Your task to perform on an android device: Empty the shopping cart on bestbuy. Image 0: 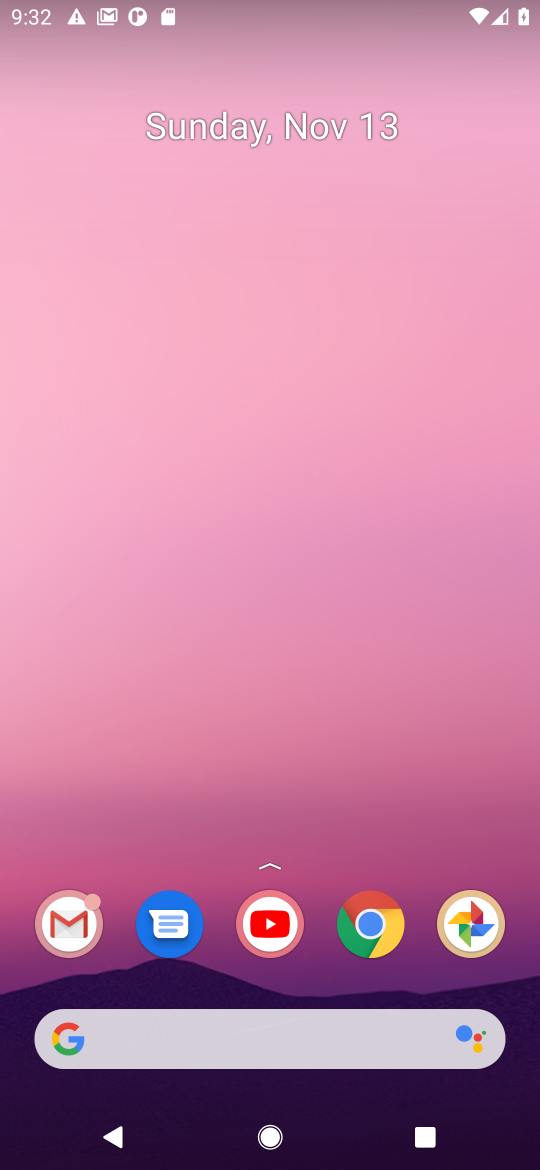
Step 0: click (380, 930)
Your task to perform on an android device: Empty the shopping cart on bestbuy. Image 1: 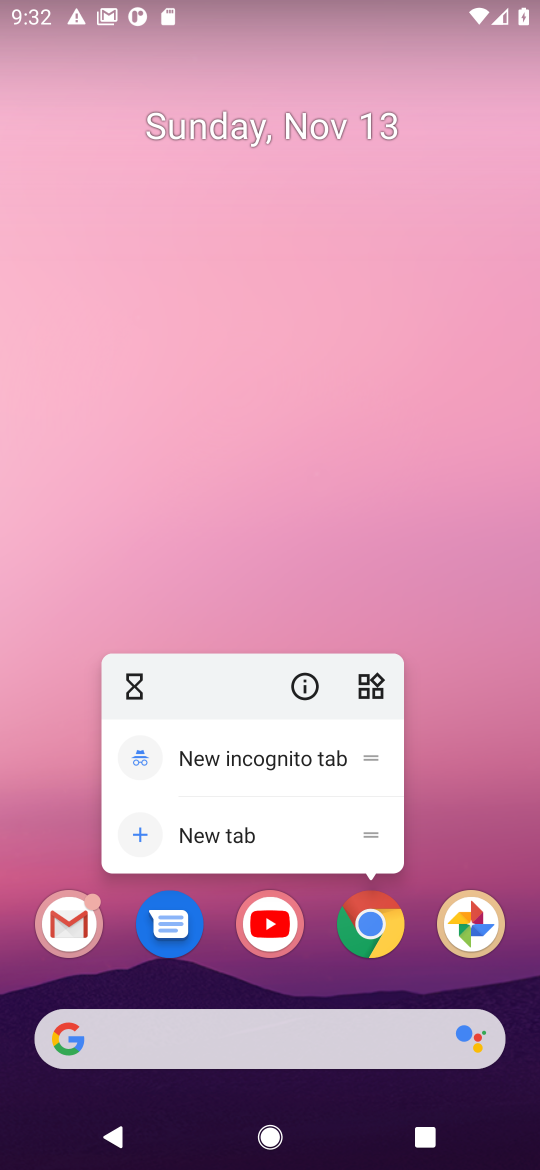
Step 1: click (382, 930)
Your task to perform on an android device: Empty the shopping cart on bestbuy. Image 2: 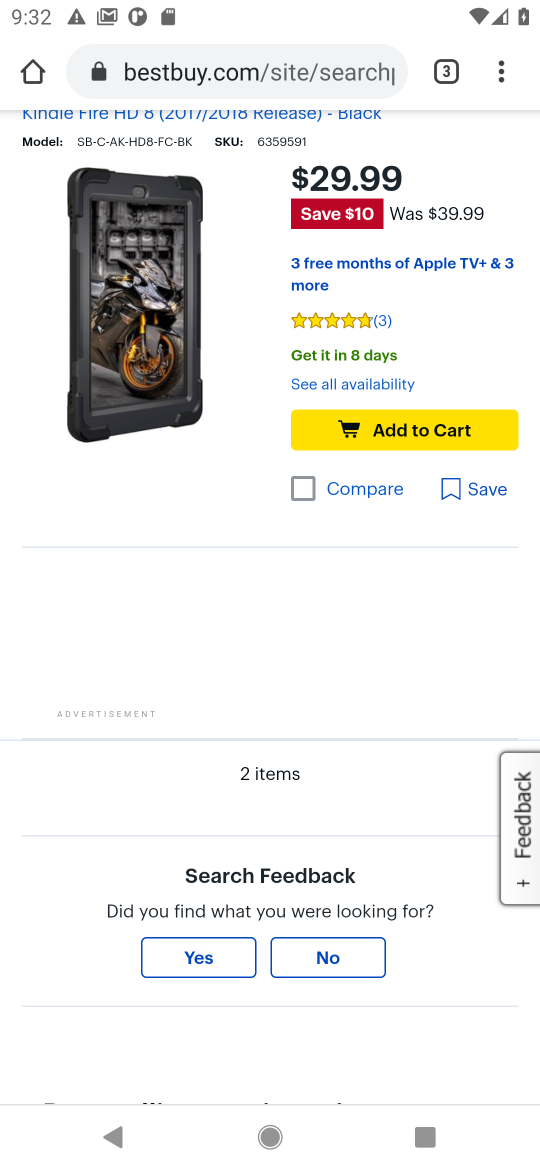
Step 2: drag from (404, 240) to (379, 908)
Your task to perform on an android device: Empty the shopping cart on bestbuy. Image 3: 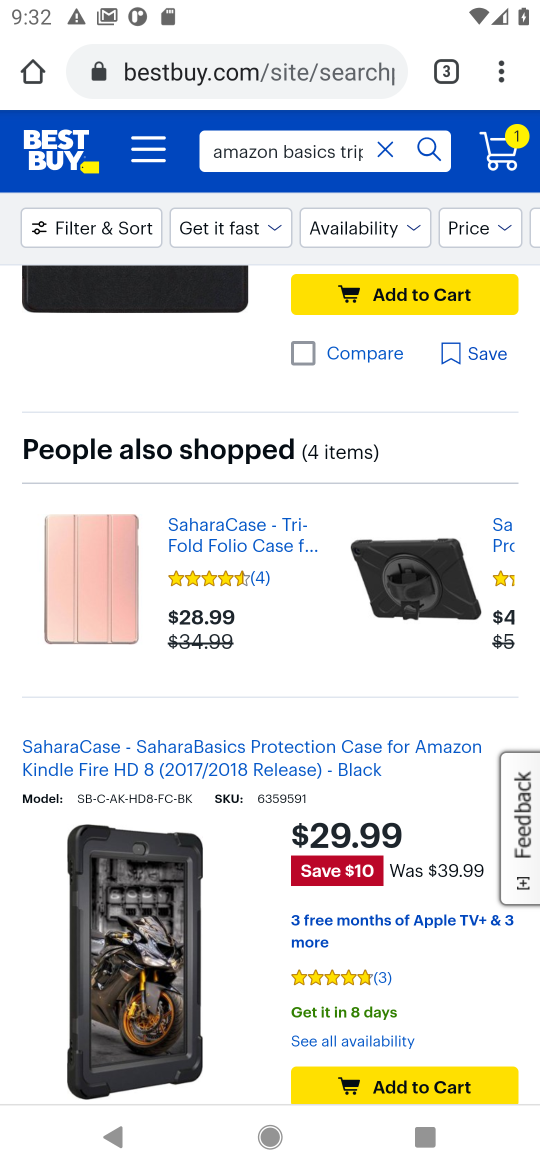
Step 3: drag from (389, 413) to (371, 996)
Your task to perform on an android device: Empty the shopping cart on bestbuy. Image 4: 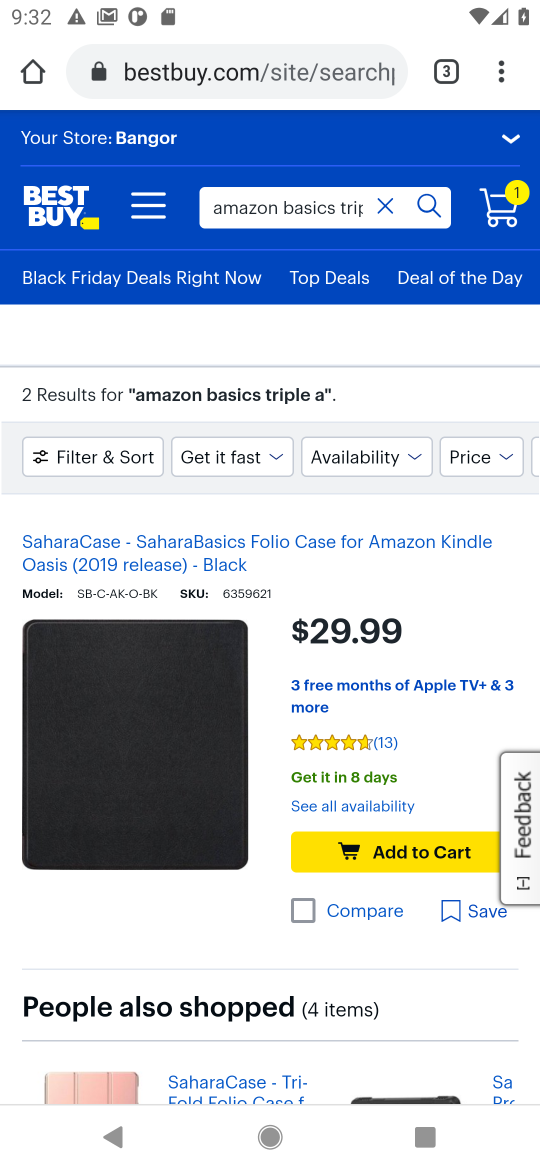
Step 4: click (504, 159)
Your task to perform on an android device: Empty the shopping cart on bestbuy. Image 5: 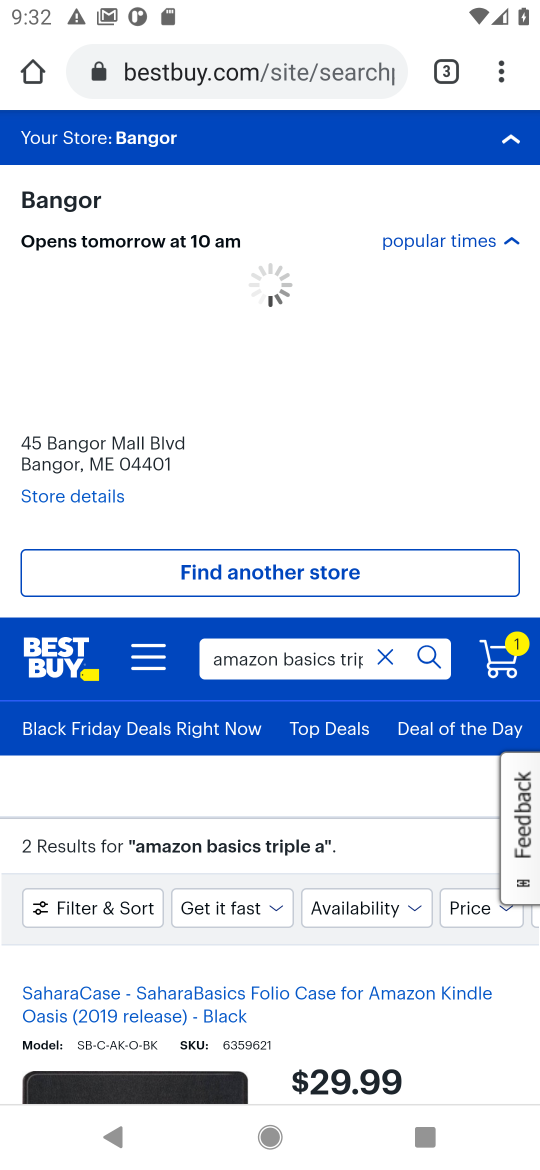
Step 5: click (501, 673)
Your task to perform on an android device: Empty the shopping cart on bestbuy. Image 6: 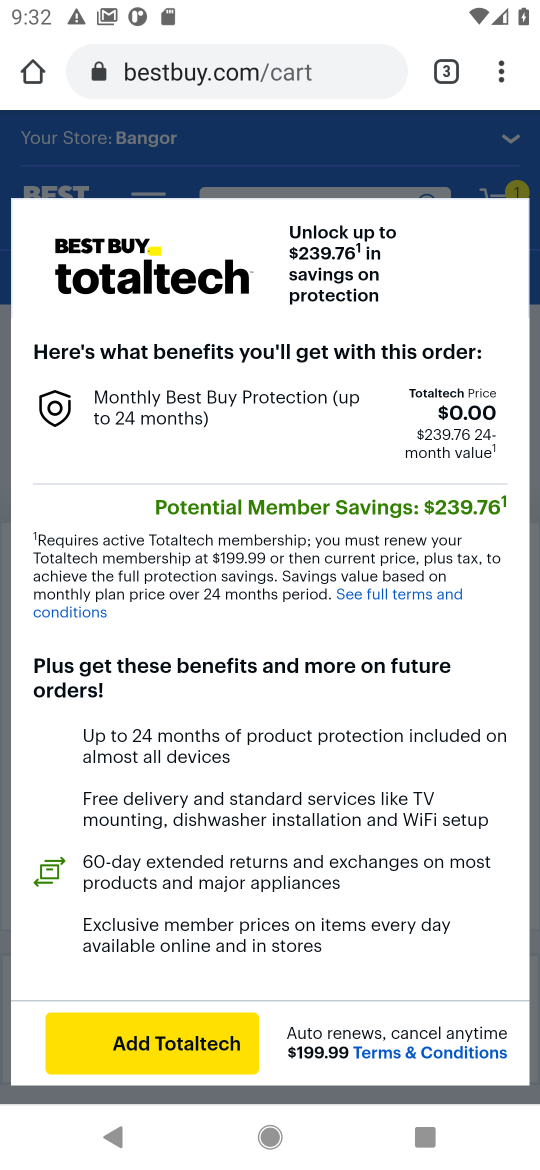
Step 6: drag from (144, 705) to (168, 443)
Your task to perform on an android device: Empty the shopping cart on bestbuy. Image 7: 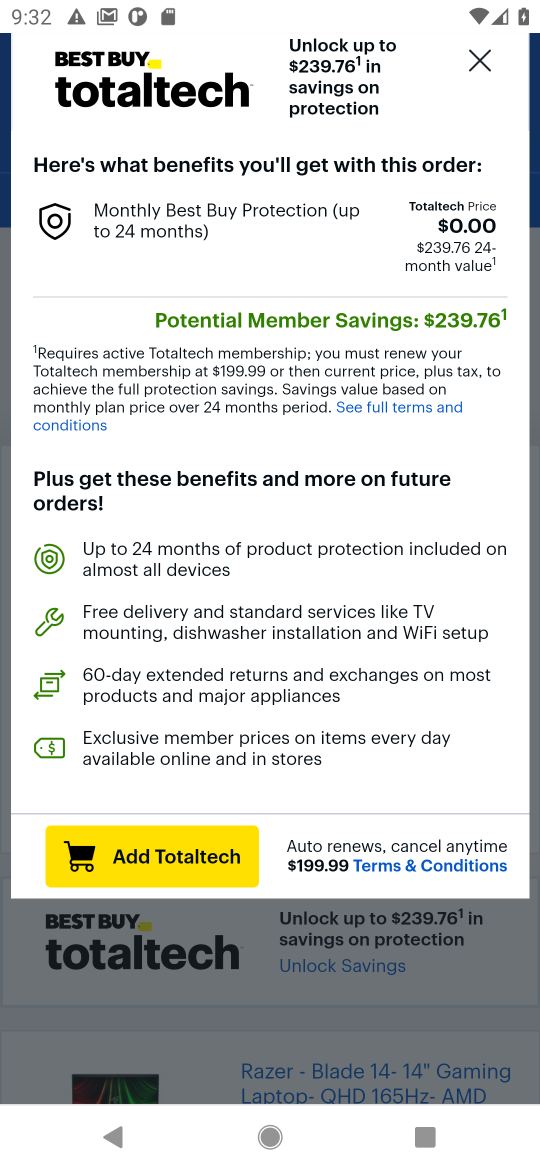
Step 7: click (486, 53)
Your task to perform on an android device: Empty the shopping cart on bestbuy. Image 8: 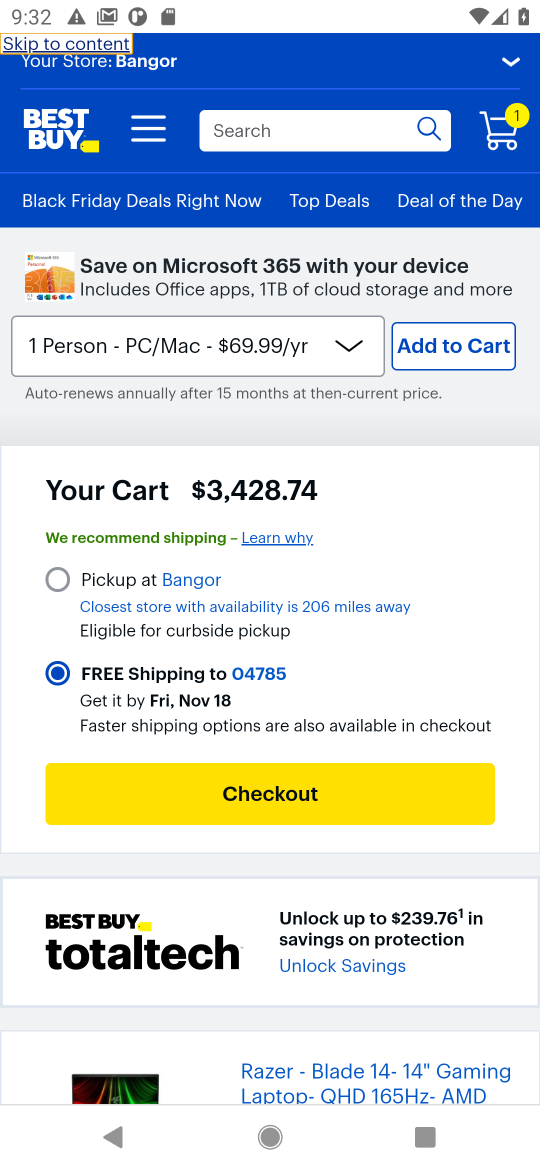
Step 8: drag from (263, 571) to (245, 210)
Your task to perform on an android device: Empty the shopping cart on bestbuy. Image 9: 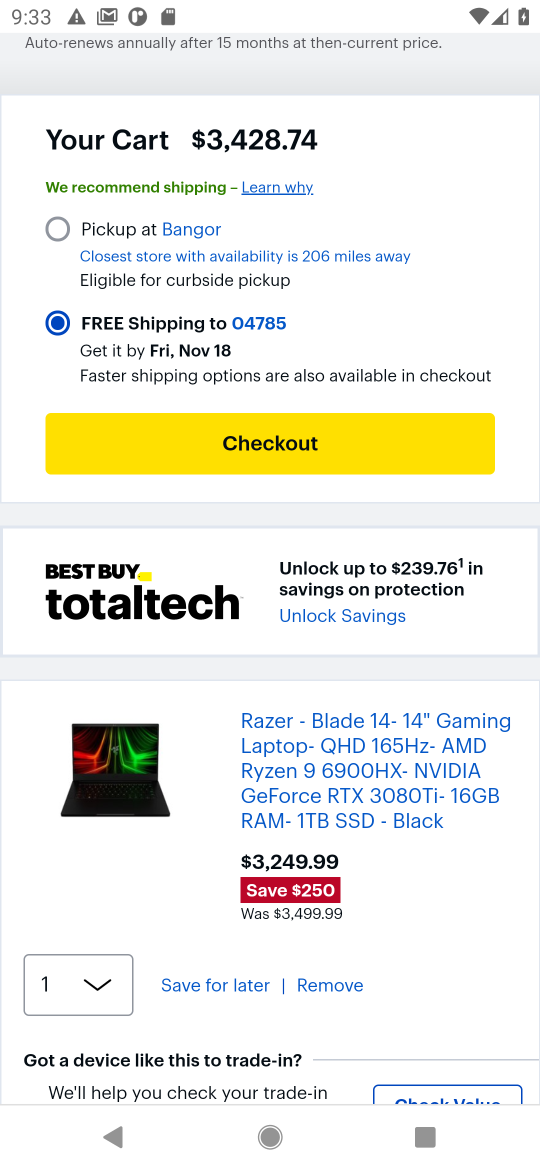
Step 9: click (311, 993)
Your task to perform on an android device: Empty the shopping cart on bestbuy. Image 10: 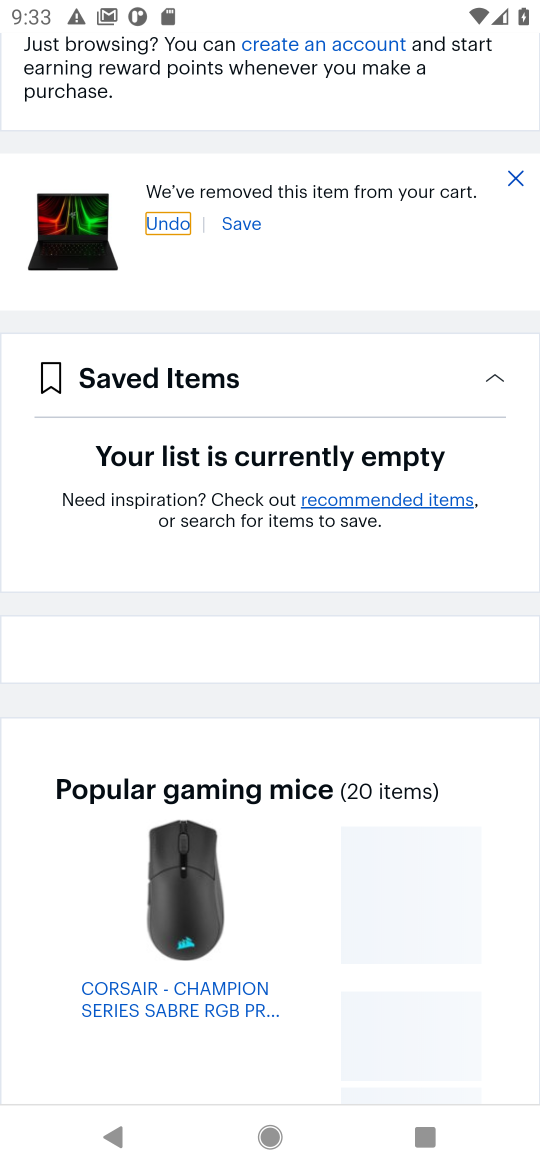
Step 10: task complete